Your task to perform on an android device: open the mobile data screen to see how much data has been used Image 0: 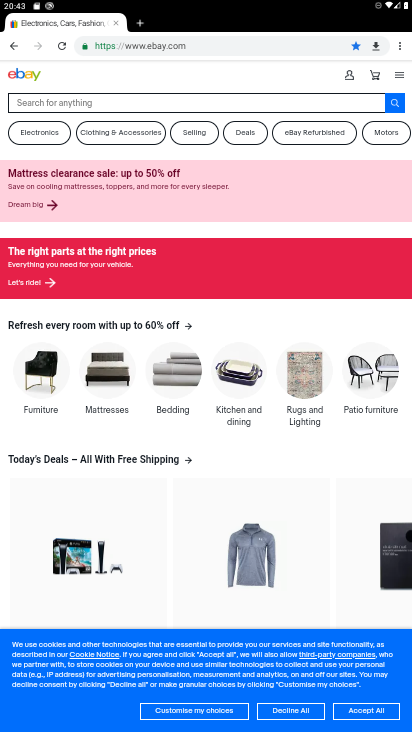
Step 0: press home button
Your task to perform on an android device: open the mobile data screen to see how much data has been used Image 1: 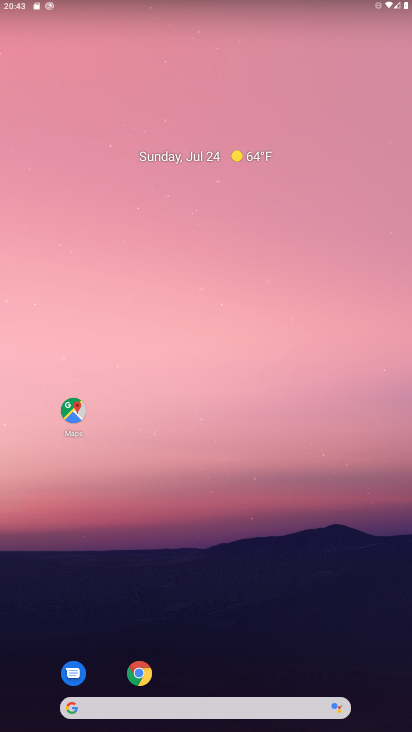
Step 1: drag from (334, 5) to (332, 496)
Your task to perform on an android device: open the mobile data screen to see how much data has been used Image 2: 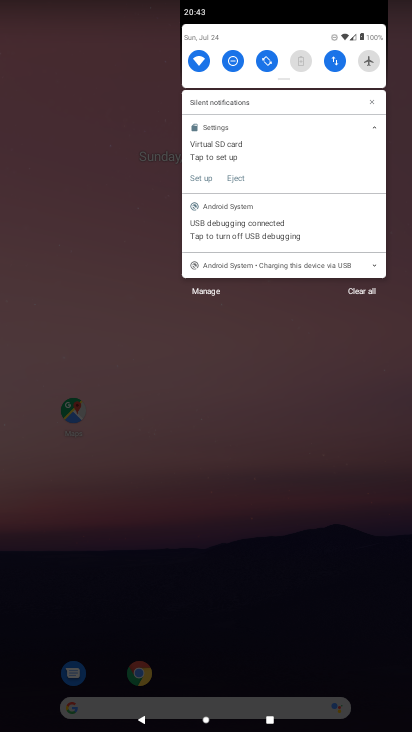
Step 2: click (340, 57)
Your task to perform on an android device: open the mobile data screen to see how much data has been used Image 3: 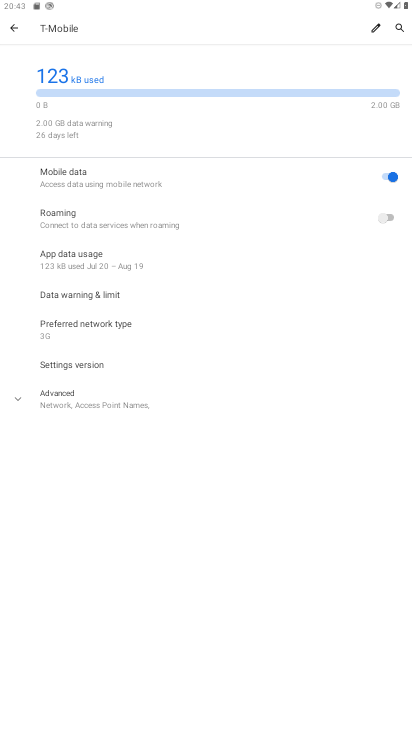
Step 3: task complete